Your task to perform on an android device: Open settings on Google Maps Image 0: 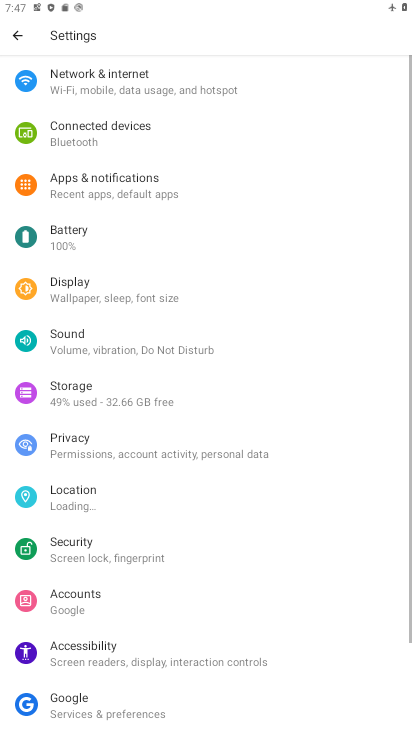
Step 0: press home button
Your task to perform on an android device: Open settings on Google Maps Image 1: 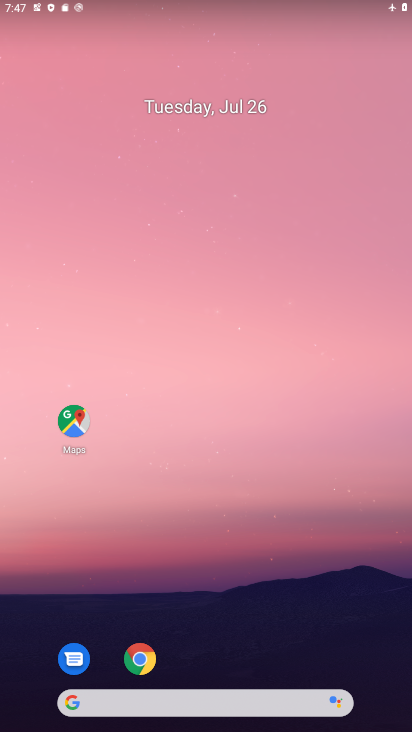
Step 1: drag from (202, 671) to (370, 20)
Your task to perform on an android device: Open settings on Google Maps Image 2: 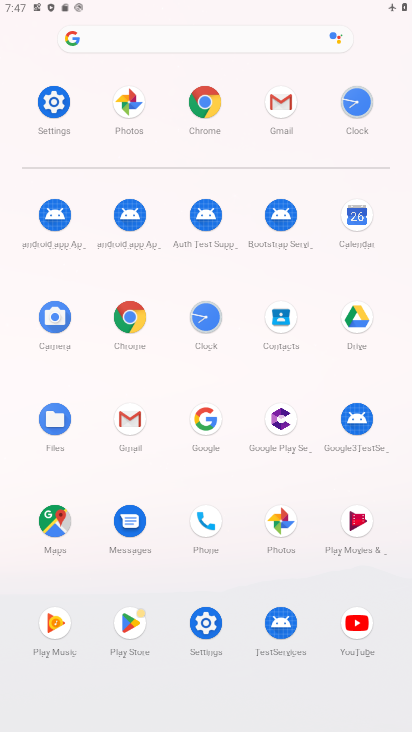
Step 2: click (44, 514)
Your task to perform on an android device: Open settings on Google Maps Image 3: 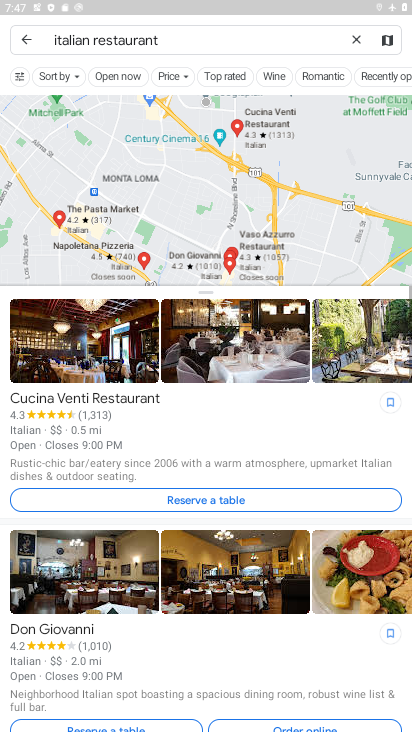
Step 3: click (28, 39)
Your task to perform on an android device: Open settings on Google Maps Image 4: 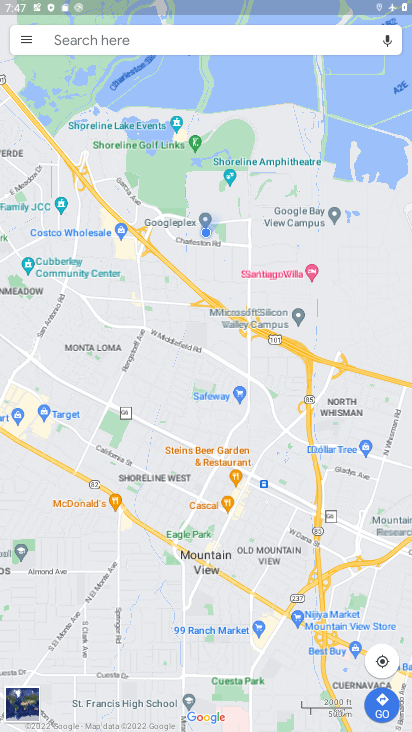
Step 4: click (28, 39)
Your task to perform on an android device: Open settings on Google Maps Image 5: 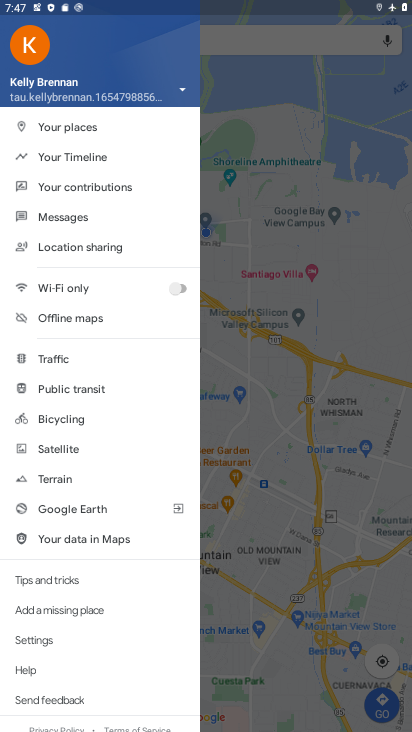
Step 5: click (40, 637)
Your task to perform on an android device: Open settings on Google Maps Image 6: 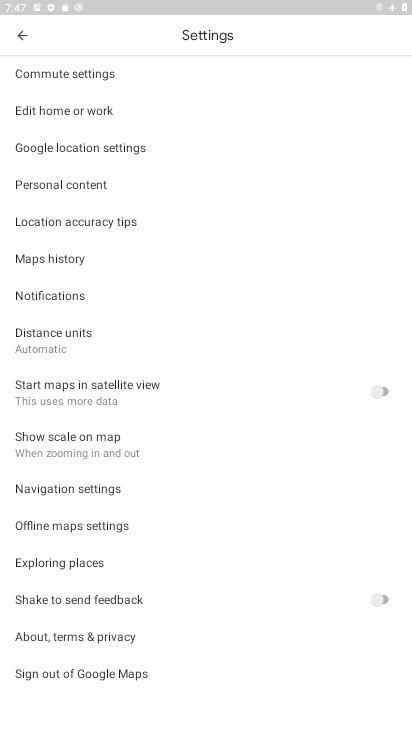
Step 6: task complete